Your task to perform on an android device: turn off location history Image 0: 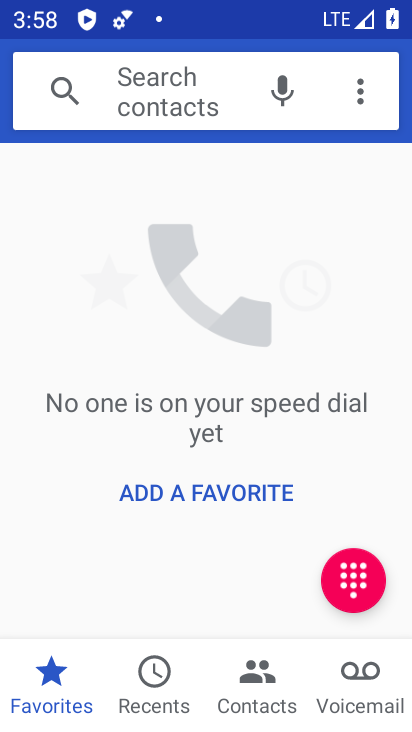
Step 0: press home button
Your task to perform on an android device: turn off location history Image 1: 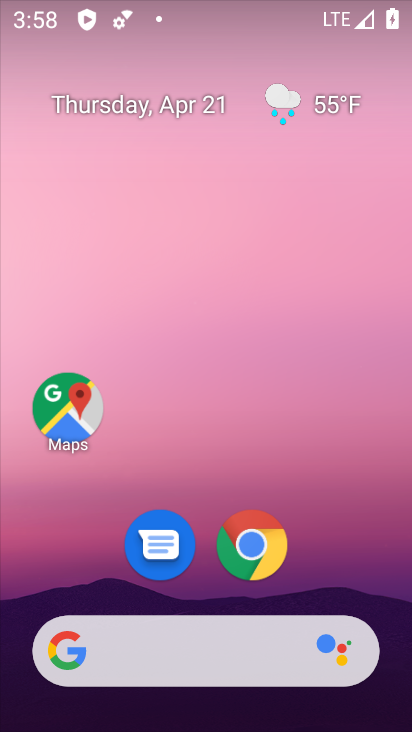
Step 1: drag from (172, 654) to (158, 24)
Your task to perform on an android device: turn off location history Image 2: 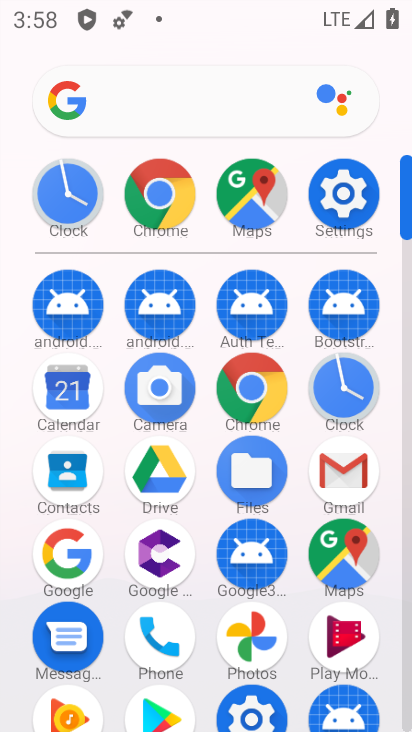
Step 2: click (331, 196)
Your task to perform on an android device: turn off location history Image 3: 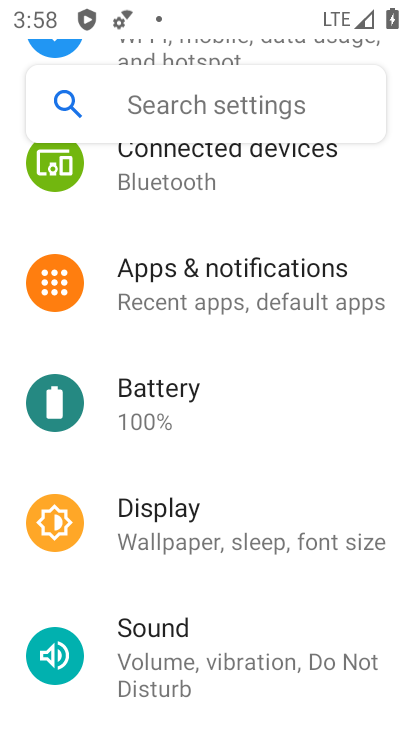
Step 3: drag from (214, 616) to (188, 170)
Your task to perform on an android device: turn off location history Image 4: 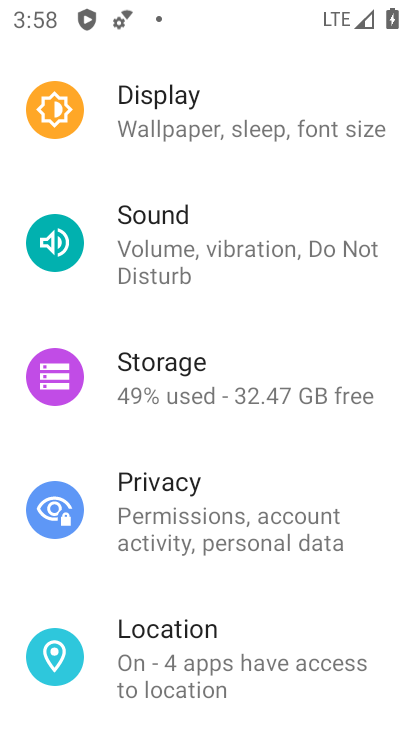
Step 4: click (212, 643)
Your task to perform on an android device: turn off location history Image 5: 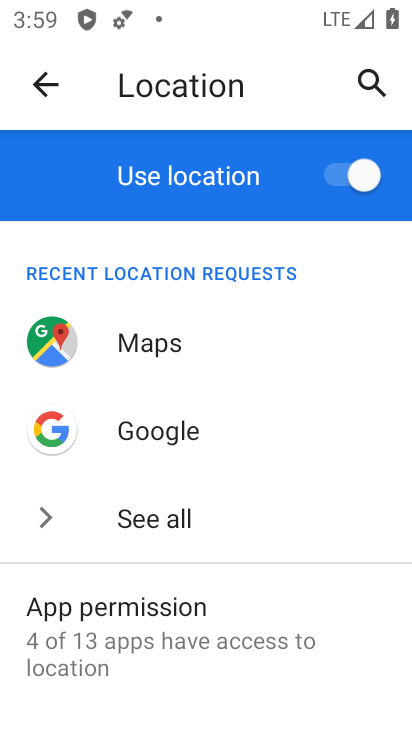
Step 5: drag from (185, 616) to (179, 38)
Your task to perform on an android device: turn off location history Image 6: 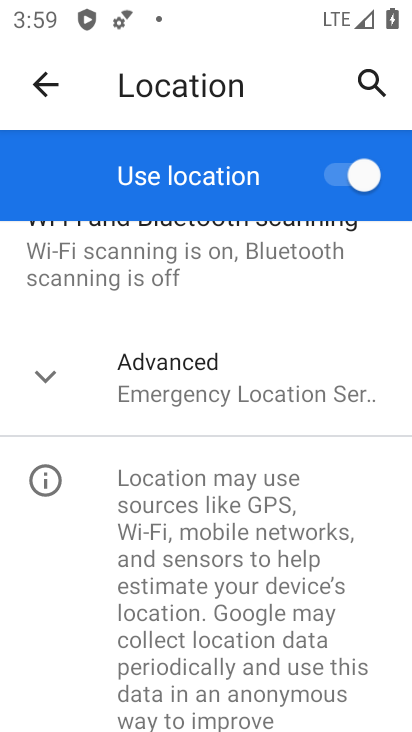
Step 6: click (199, 367)
Your task to perform on an android device: turn off location history Image 7: 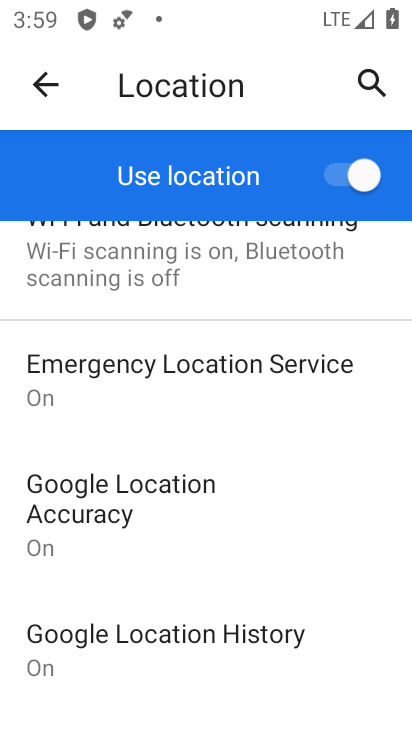
Step 7: click (225, 641)
Your task to perform on an android device: turn off location history Image 8: 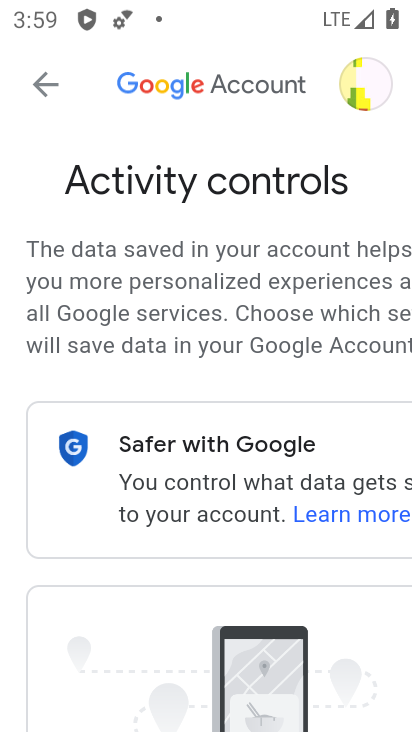
Step 8: task complete